Your task to perform on an android device: turn smart compose on in the gmail app Image 0: 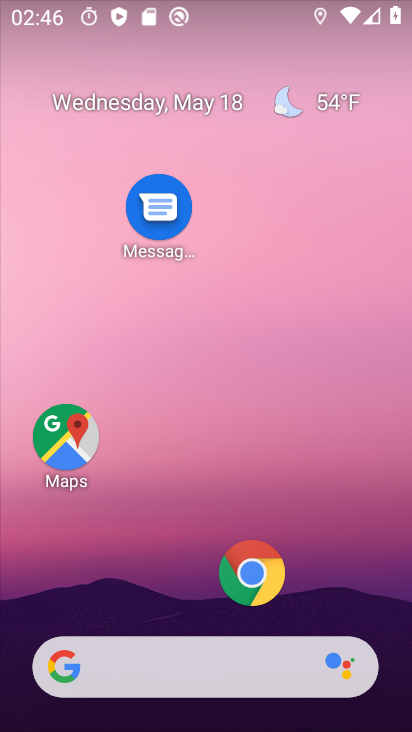
Step 0: drag from (189, 608) to (189, 194)
Your task to perform on an android device: turn smart compose on in the gmail app Image 1: 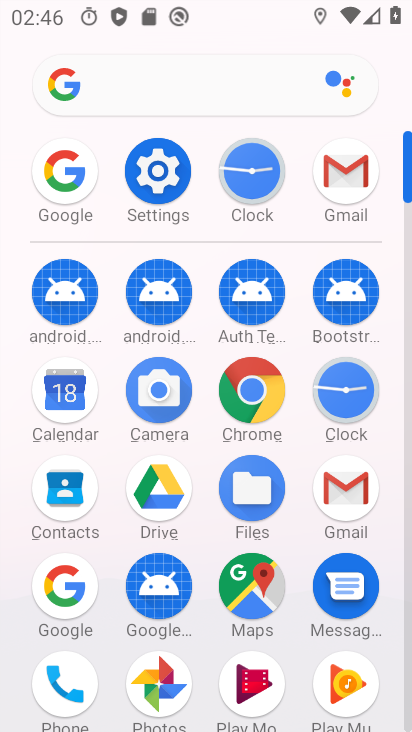
Step 1: click (330, 185)
Your task to perform on an android device: turn smart compose on in the gmail app Image 2: 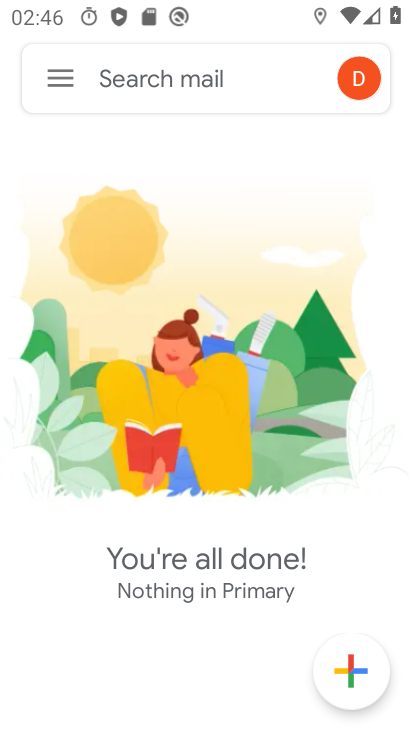
Step 2: click (65, 87)
Your task to perform on an android device: turn smart compose on in the gmail app Image 3: 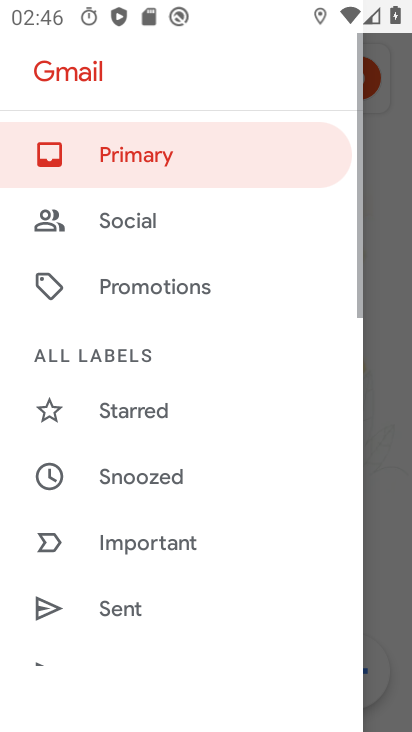
Step 3: drag from (194, 578) to (234, 256)
Your task to perform on an android device: turn smart compose on in the gmail app Image 4: 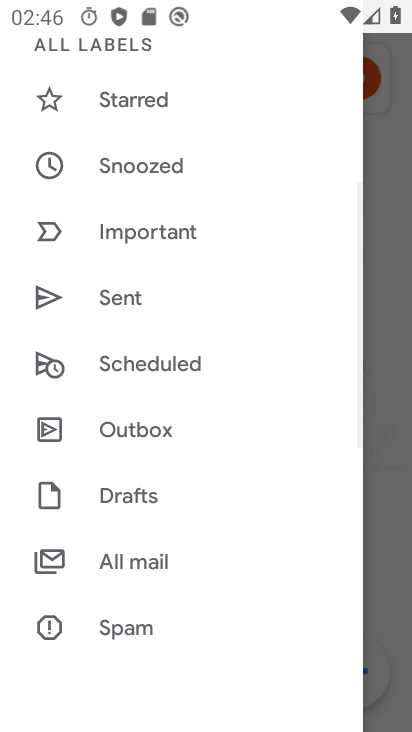
Step 4: drag from (161, 581) to (220, 306)
Your task to perform on an android device: turn smart compose on in the gmail app Image 5: 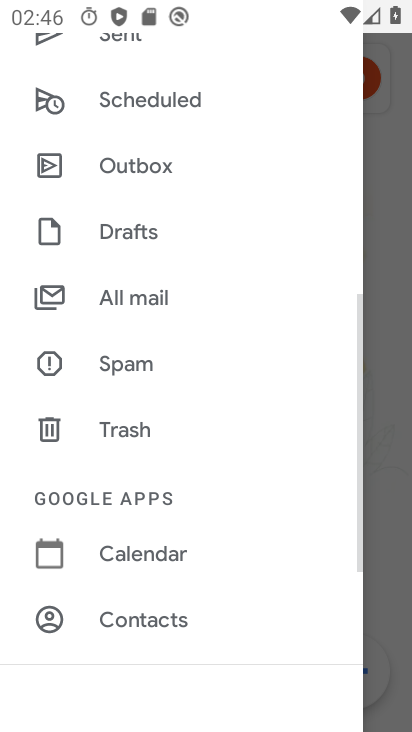
Step 5: drag from (166, 607) to (226, 305)
Your task to perform on an android device: turn smart compose on in the gmail app Image 6: 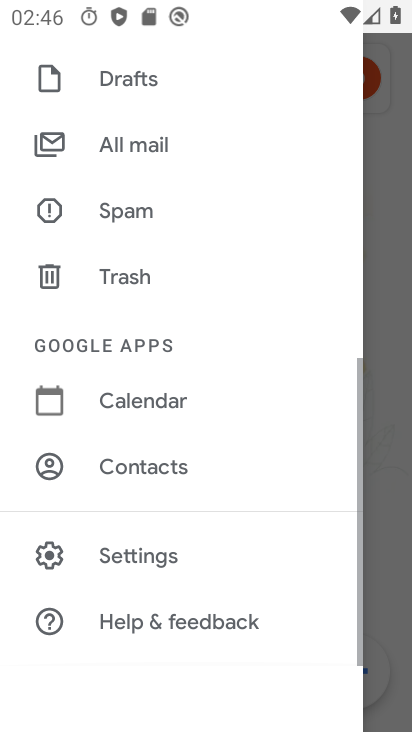
Step 6: click (157, 544)
Your task to perform on an android device: turn smart compose on in the gmail app Image 7: 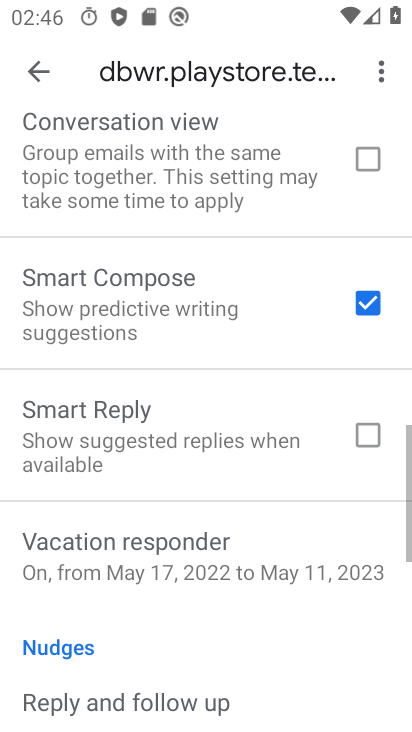
Step 7: task complete